Your task to perform on an android device: toggle sleep mode Image 0: 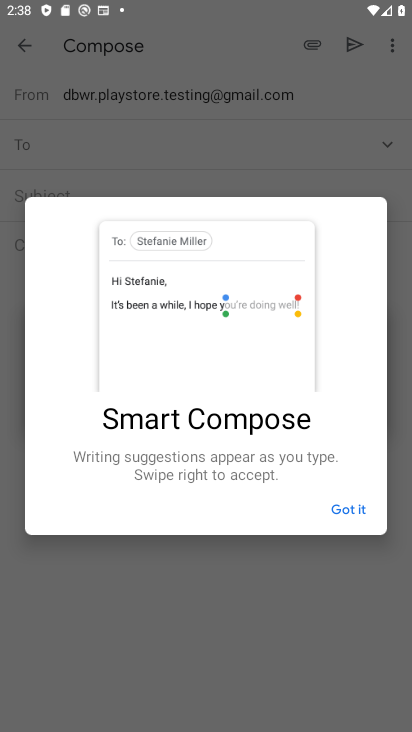
Step 0: press home button
Your task to perform on an android device: toggle sleep mode Image 1: 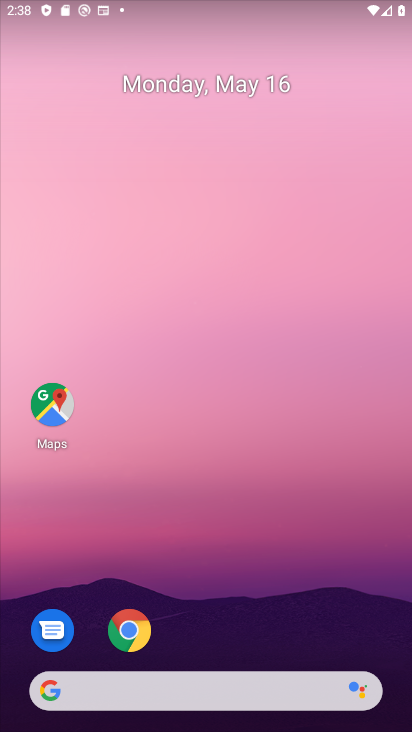
Step 1: drag from (217, 643) to (241, 162)
Your task to perform on an android device: toggle sleep mode Image 2: 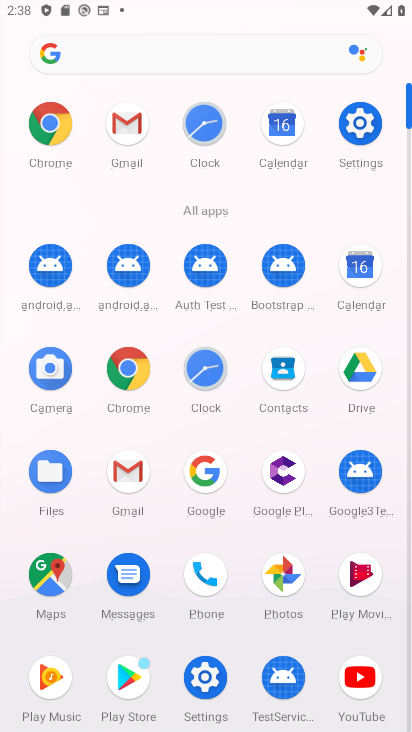
Step 2: click (359, 119)
Your task to perform on an android device: toggle sleep mode Image 3: 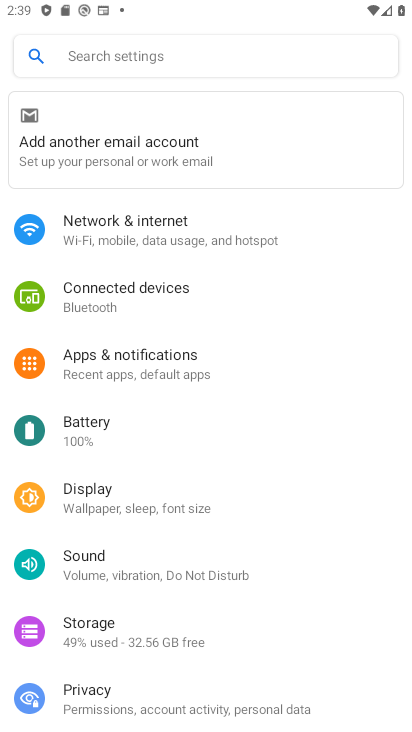
Step 3: click (121, 491)
Your task to perform on an android device: toggle sleep mode Image 4: 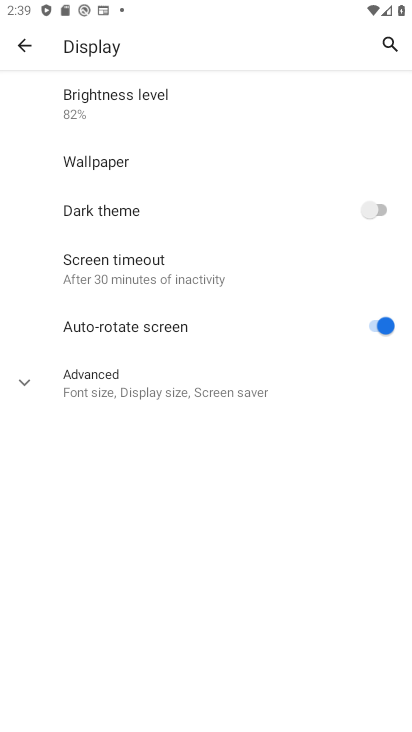
Step 4: click (125, 377)
Your task to perform on an android device: toggle sleep mode Image 5: 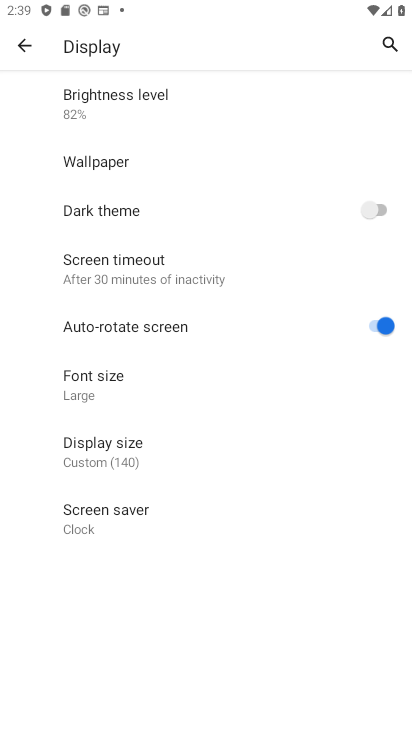
Step 5: task complete